Your task to perform on an android device: Search for "custom wallet" on Etsy. Image 0: 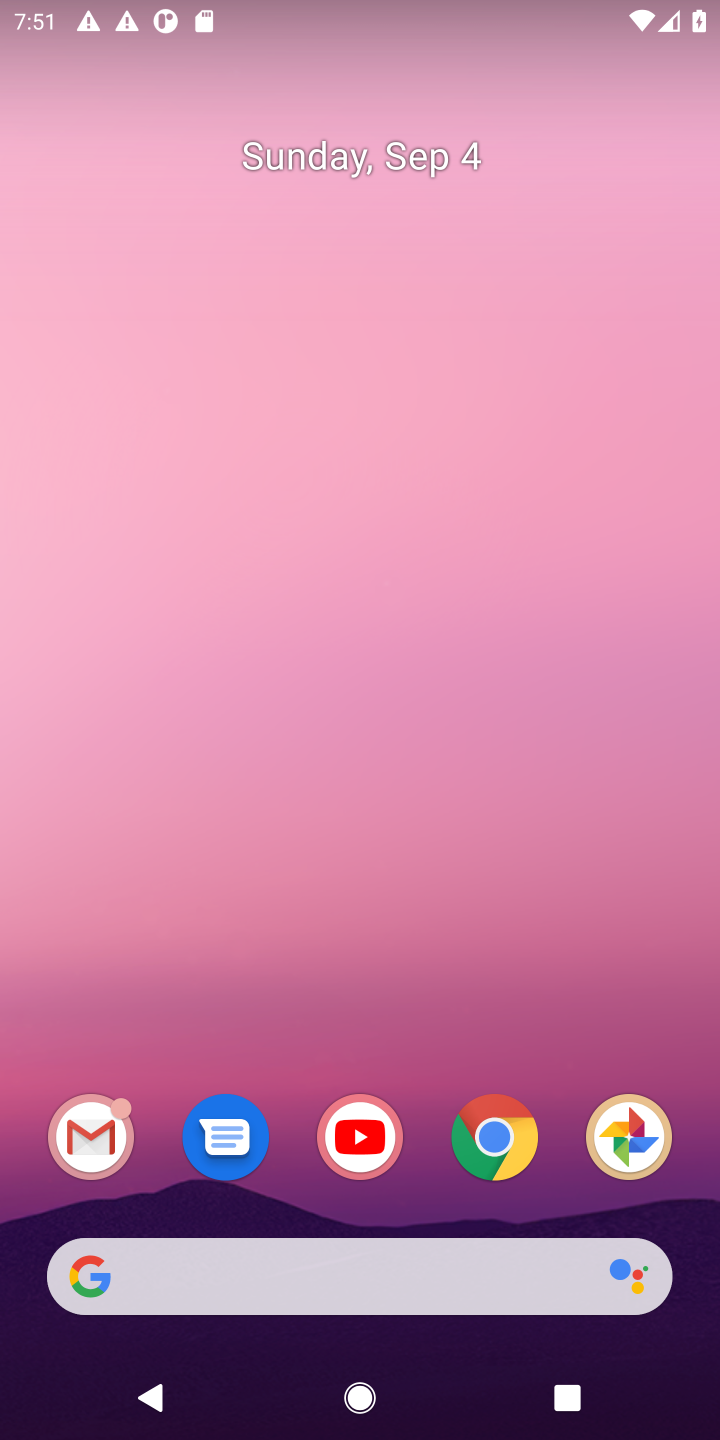
Step 0: click (495, 1140)
Your task to perform on an android device: Search for "custom wallet" on Etsy. Image 1: 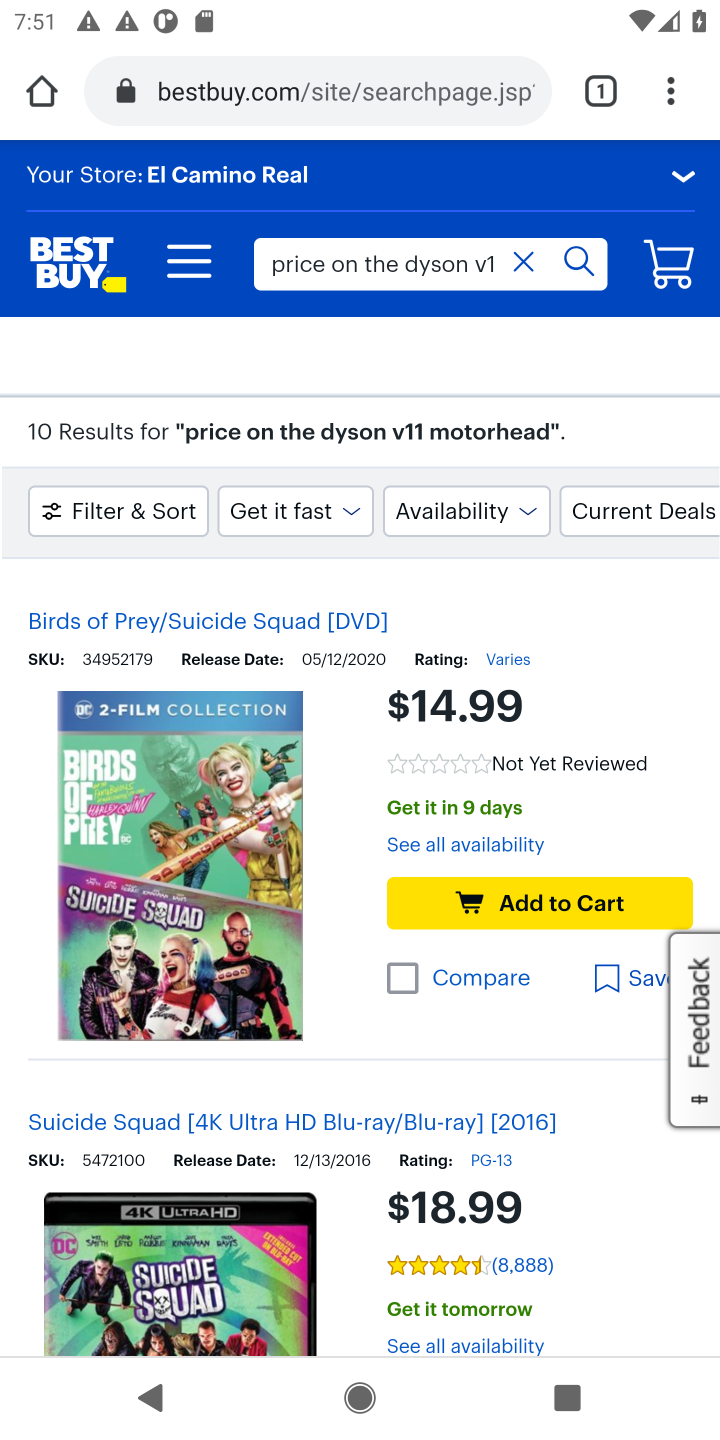
Step 1: click (348, 83)
Your task to perform on an android device: Search for "custom wallet" on Etsy. Image 2: 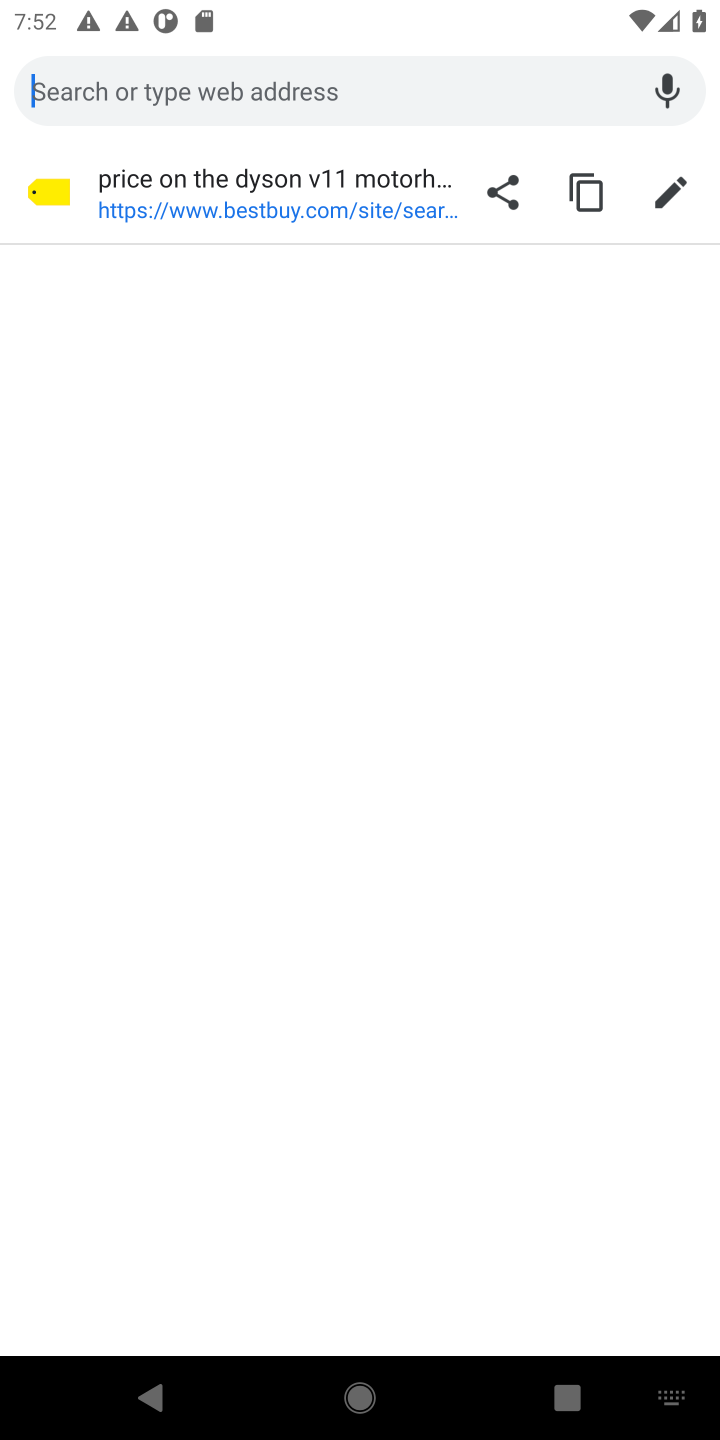
Step 2: type "Etsy"
Your task to perform on an android device: Search for "custom wallet" on Etsy. Image 3: 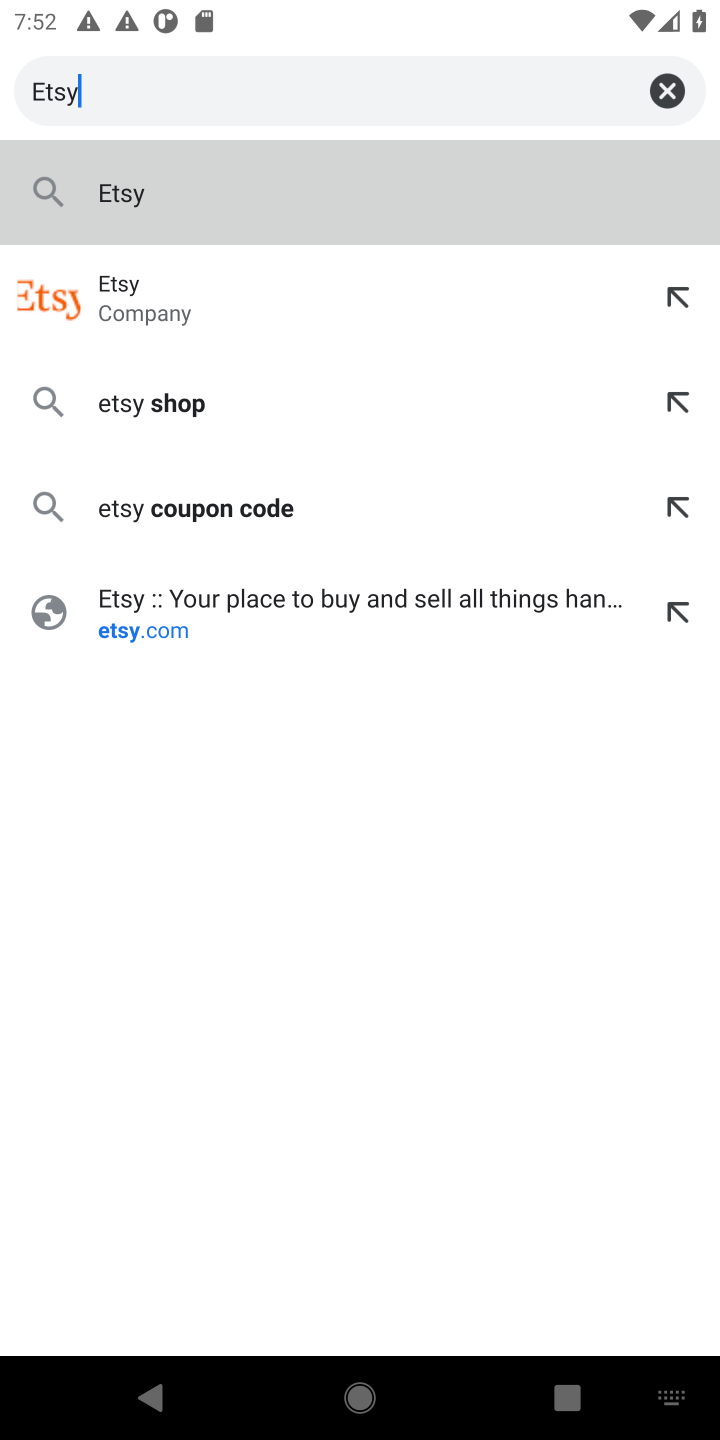
Step 3: click (166, 295)
Your task to perform on an android device: Search for "custom wallet" on Etsy. Image 4: 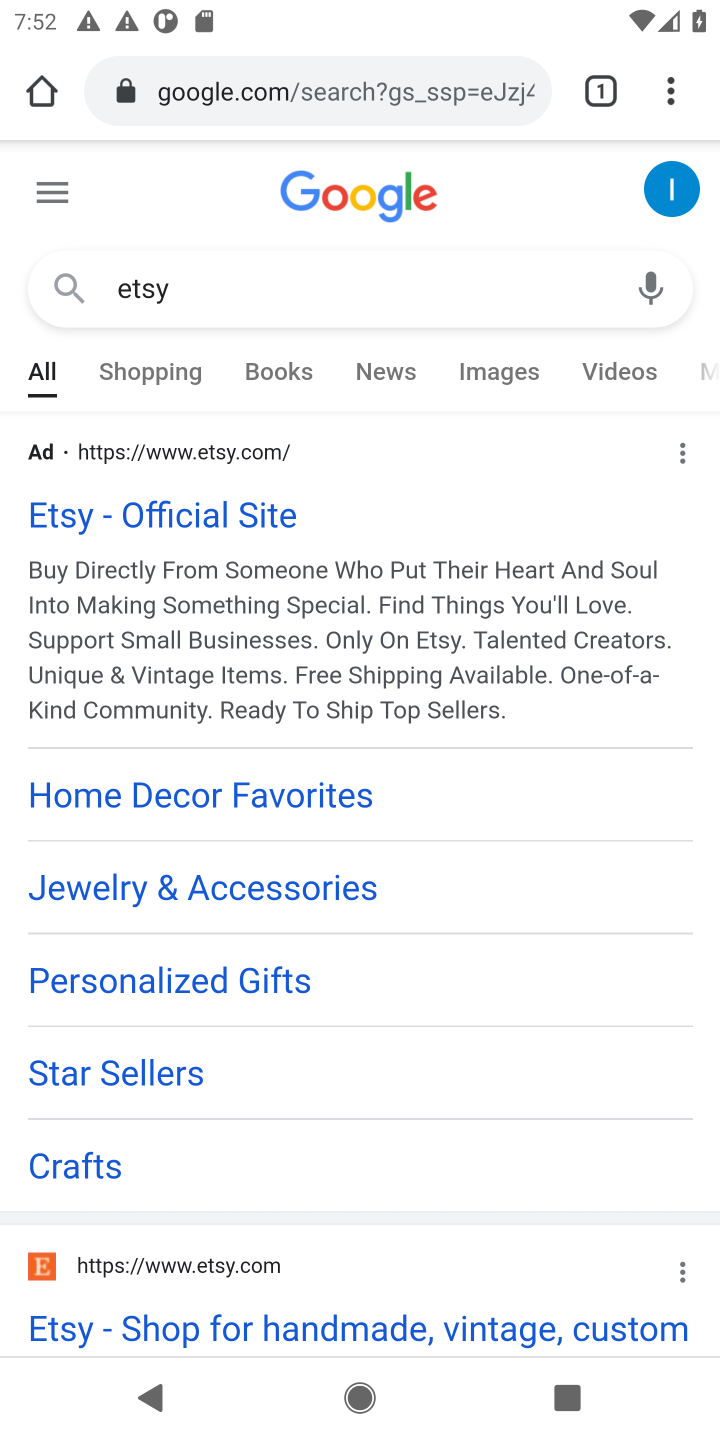
Step 4: drag from (387, 1275) to (535, 601)
Your task to perform on an android device: Search for "custom wallet" on Etsy. Image 5: 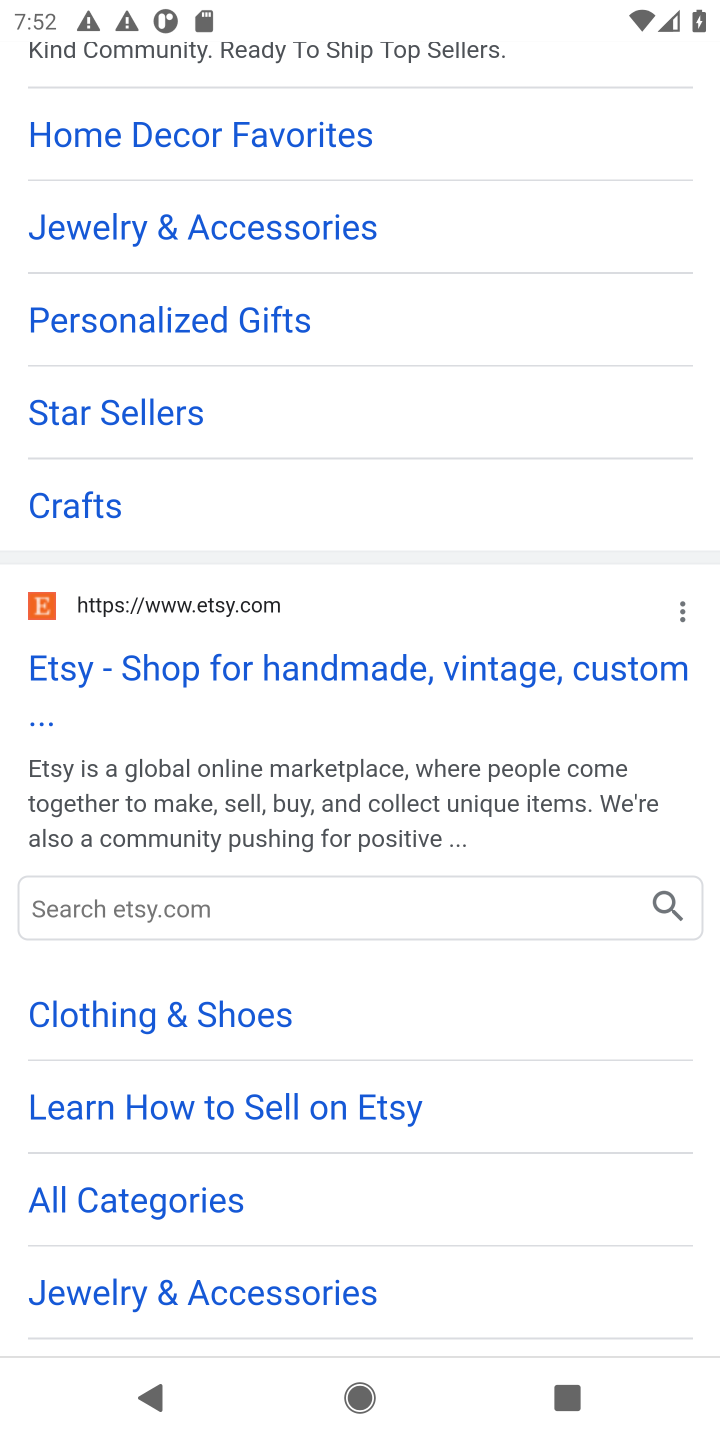
Step 5: click (207, 663)
Your task to perform on an android device: Search for "custom wallet" on Etsy. Image 6: 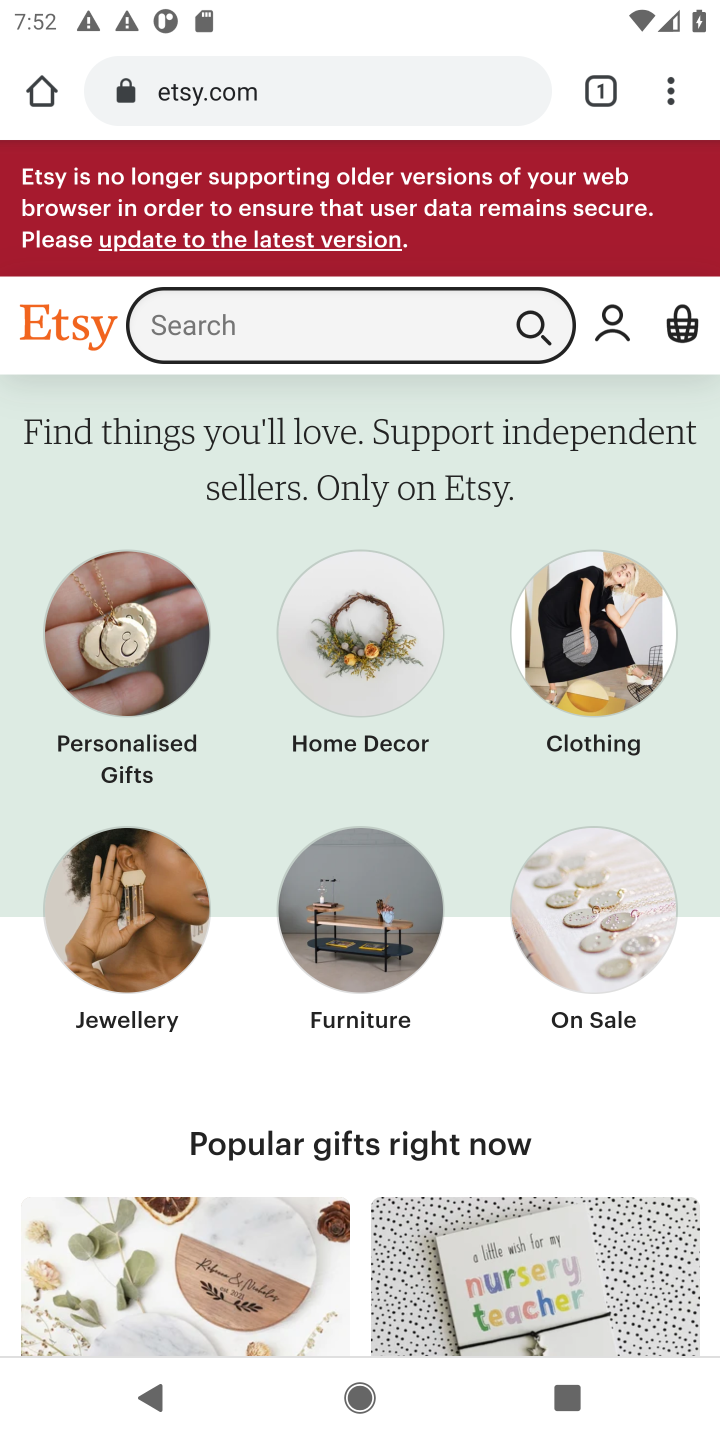
Step 6: click (271, 312)
Your task to perform on an android device: Search for "custom wallet" on Etsy. Image 7: 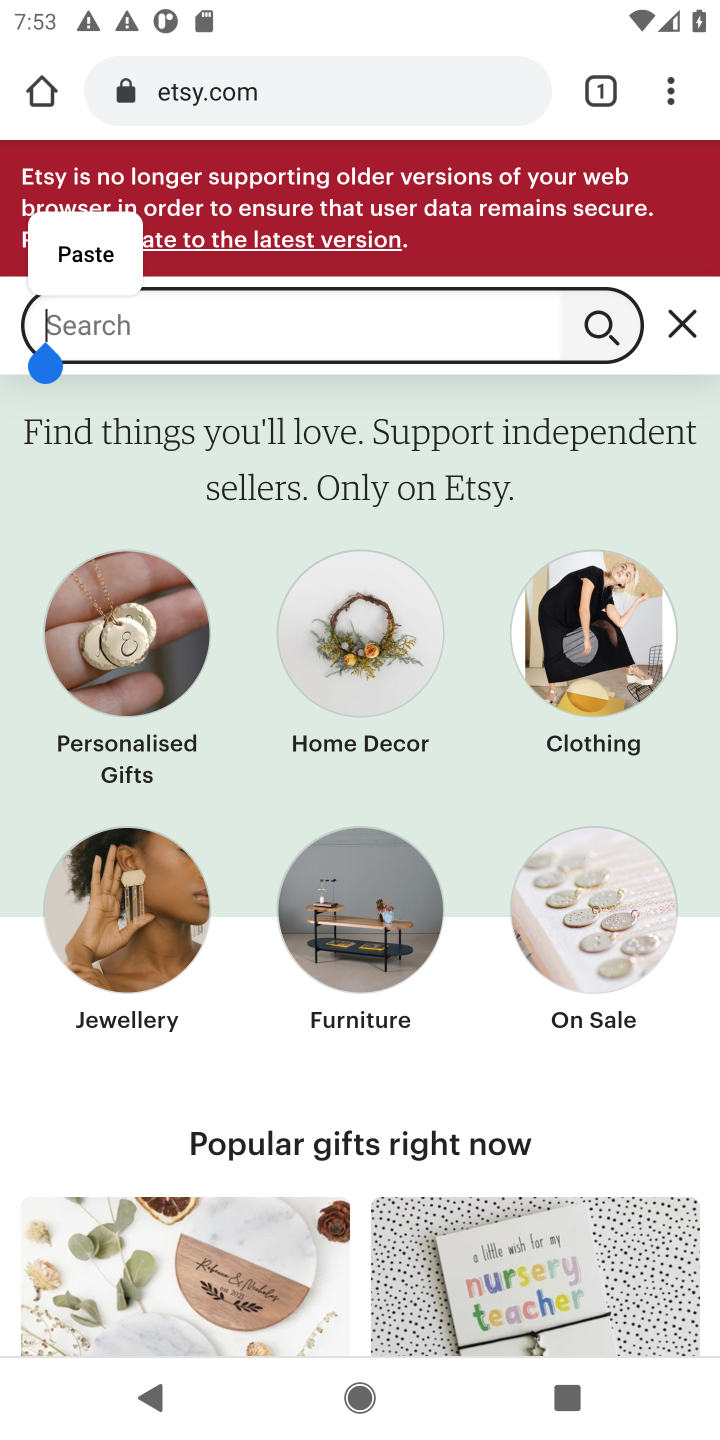
Step 7: type "custom wallet"
Your task to perform on an android device: Search for "custom wallet" on Etsy. Image 8: 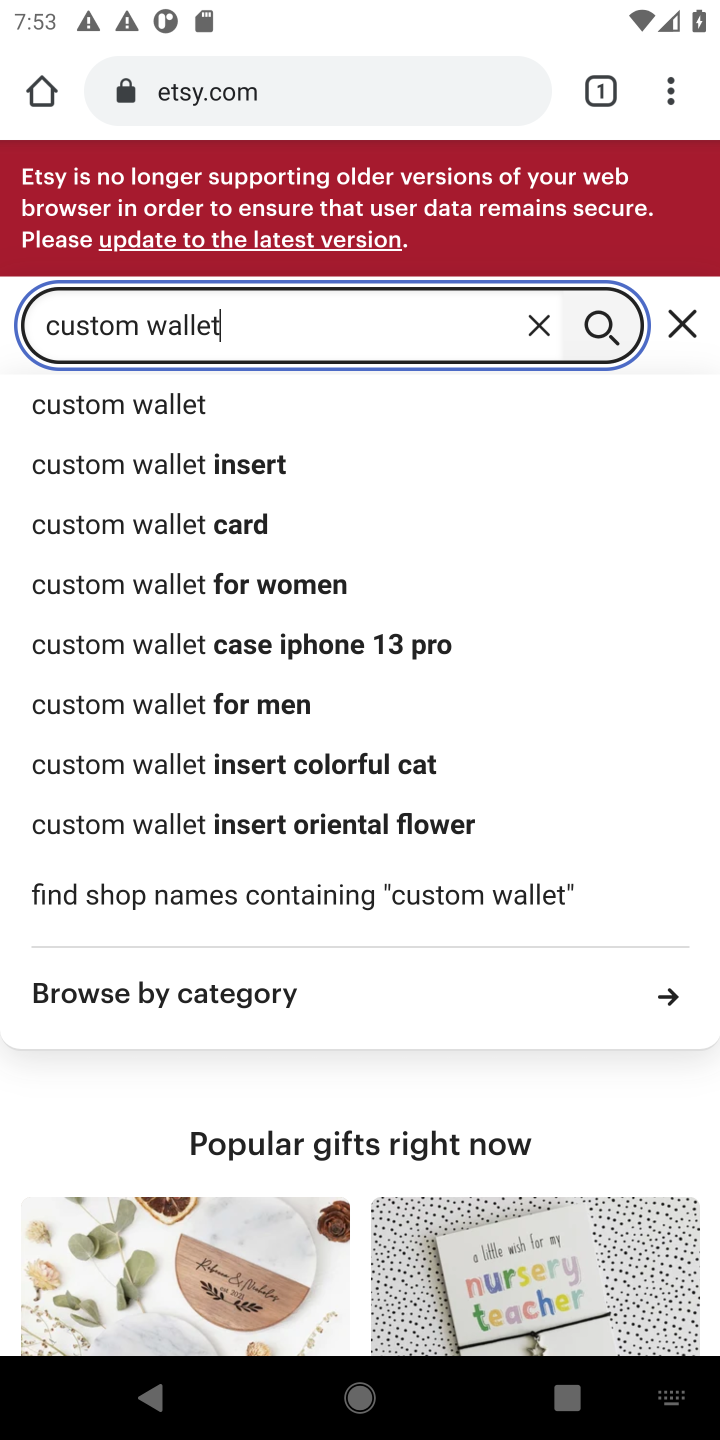
Step 8: click (176, 403)
Your task to perform on an android device: Search for "custom wallet" on Etsy. Image 9: 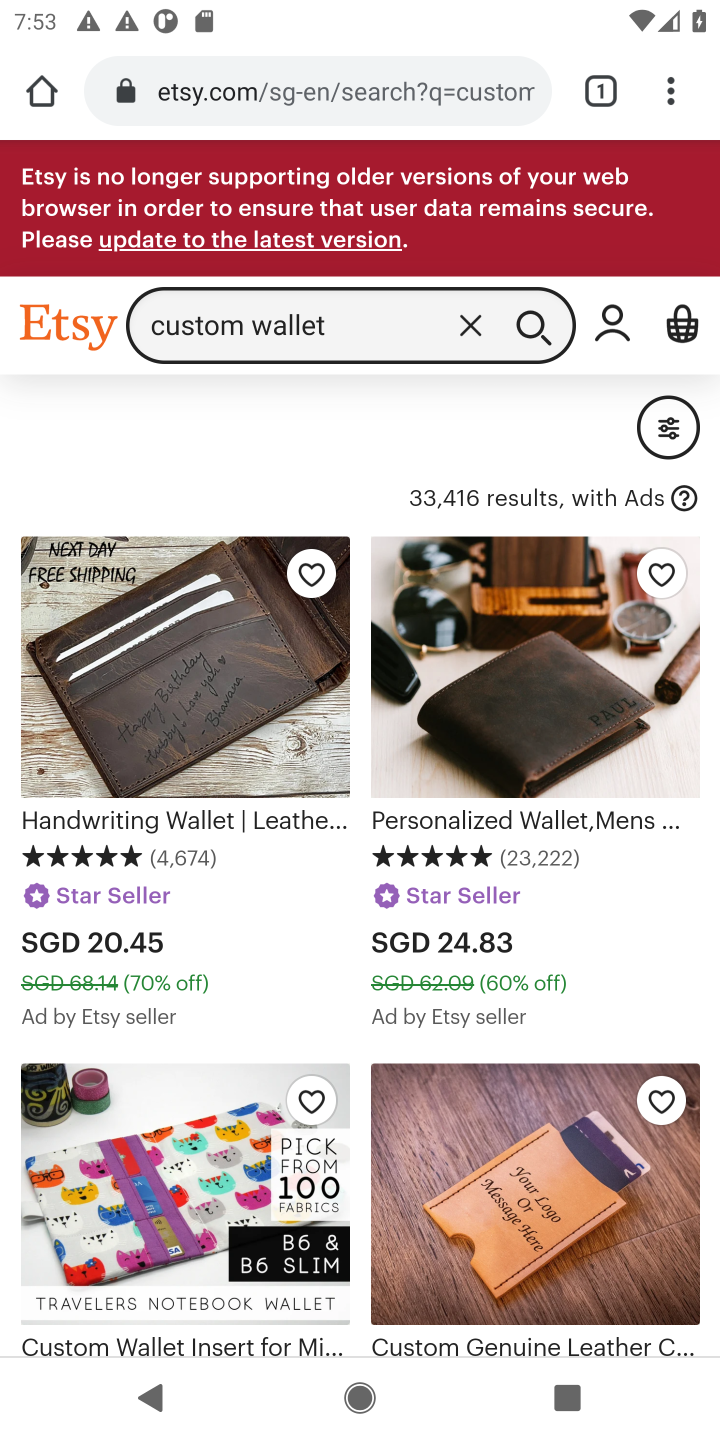
Step 9: click (532, 319)
Your task to perform on an android device: Search for "custom wallet" on Etsy. Image 10: 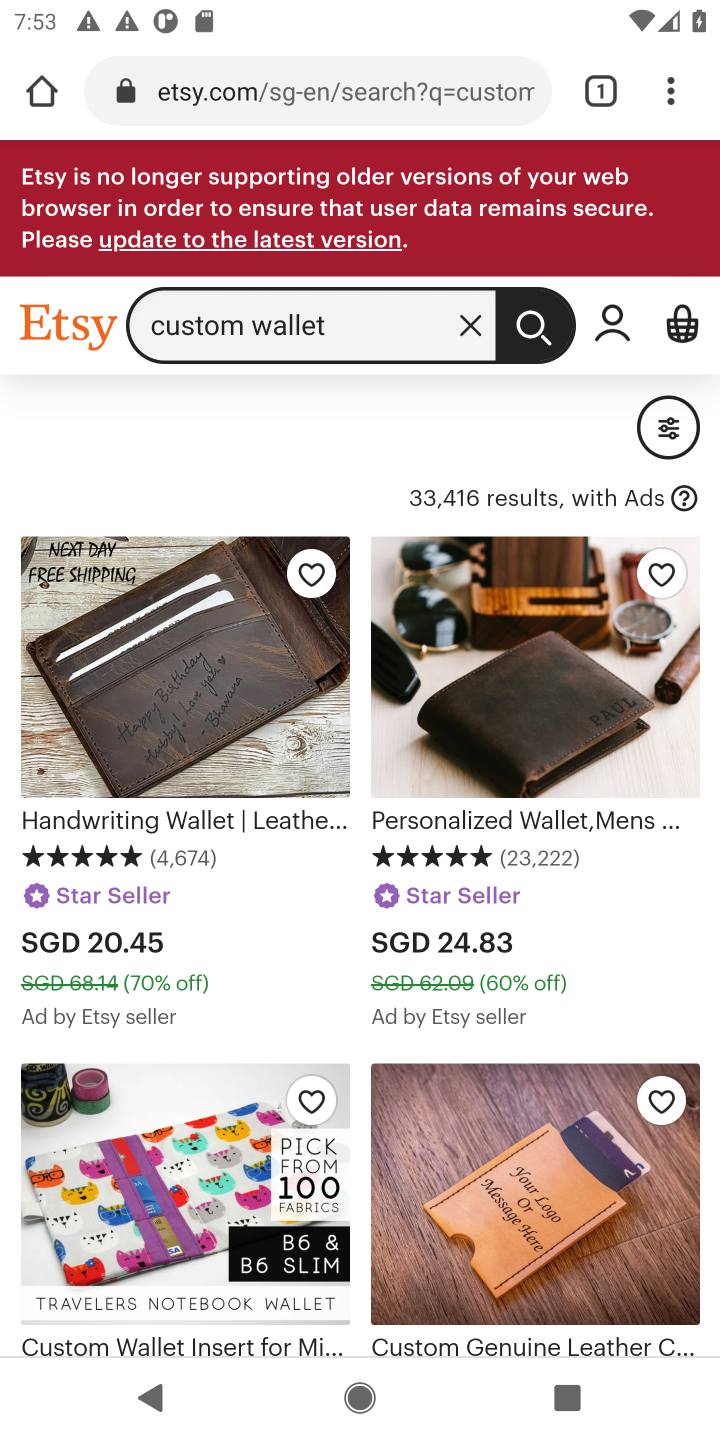
Step 10: task complete